Your task to perform on an android device: Go to wifi settings Image 0: 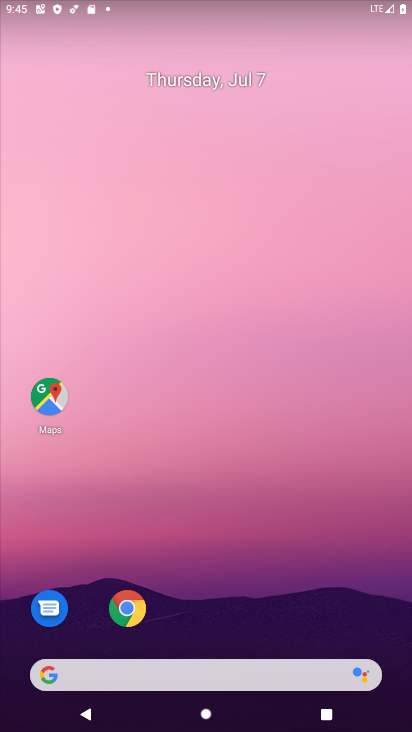
Step 0: drag from (200, 626) to (270, 86)
Your task to perform on an android device: Go to wifi settings Image 1: 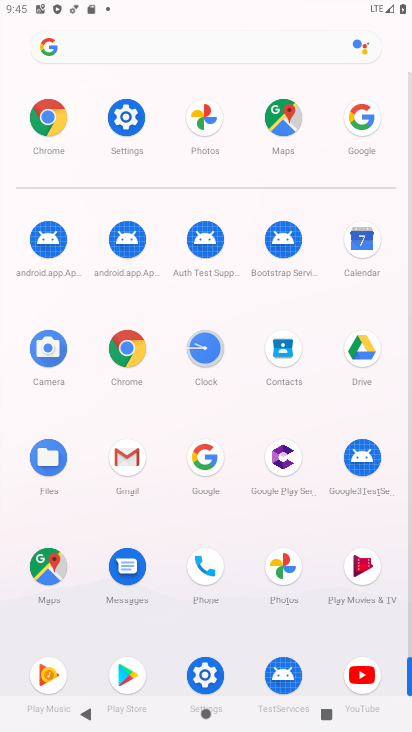
Step 1: click (127, 112)
Your task to perform on an android device: Go to wifi settings Image 2: 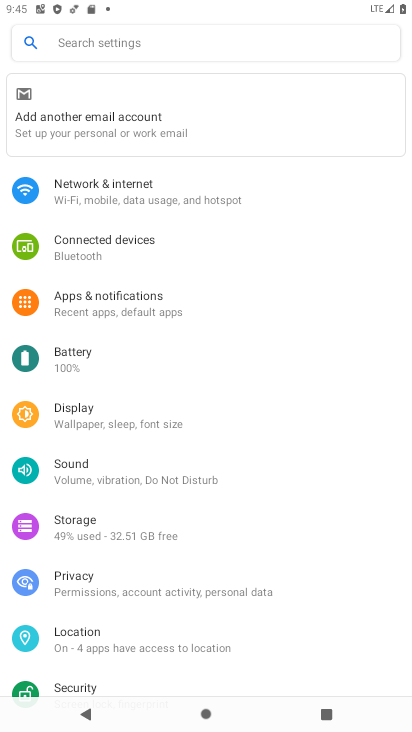
Step 2: click (120, 195)
Your task to perform on an android device: Go to wifi settings Image 3: 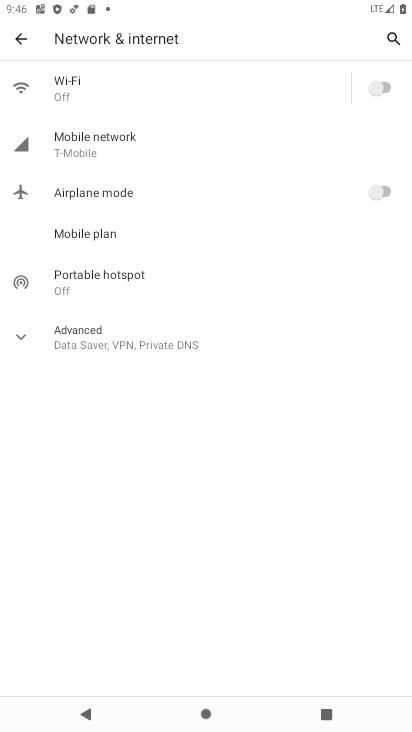
Step 3: click (138, 90)
Your task to perform on an android device: Go to wifi settings Image 4: 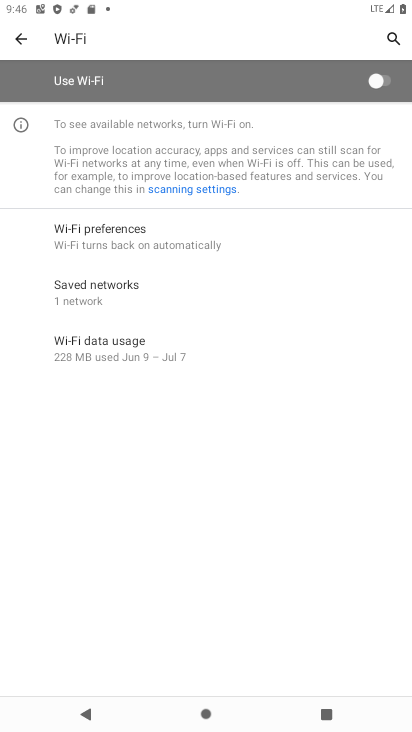
Step 4: click (370, 84)
Your task to perform on an android device: Go to wifi settings Image 5: 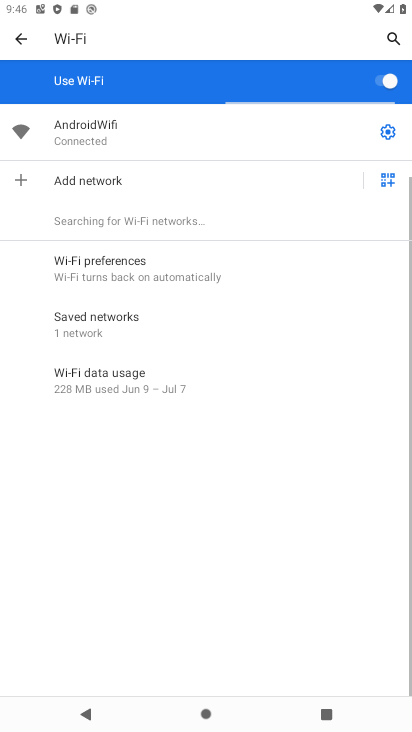
Step 5: click (387, 135)
Your task to perform on an android device: Go to wifi settings Image 6: 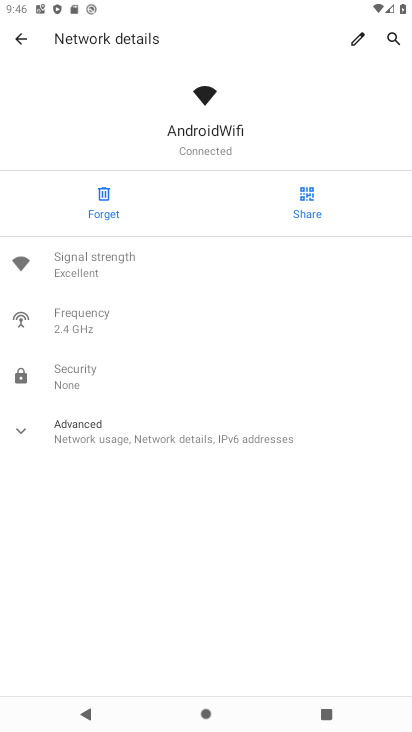
Step 6: task complete